Your task to perform on an android device: allow notifications from all sites in the chrome app Image 0: 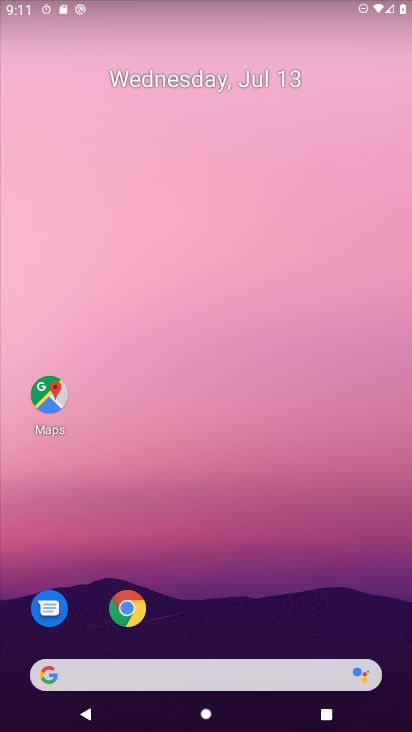
Step 0: drag from (283, 481) to (277, 307)
Your task to perform on an android device: allow notifications from all sites in the chrome app Image 1: 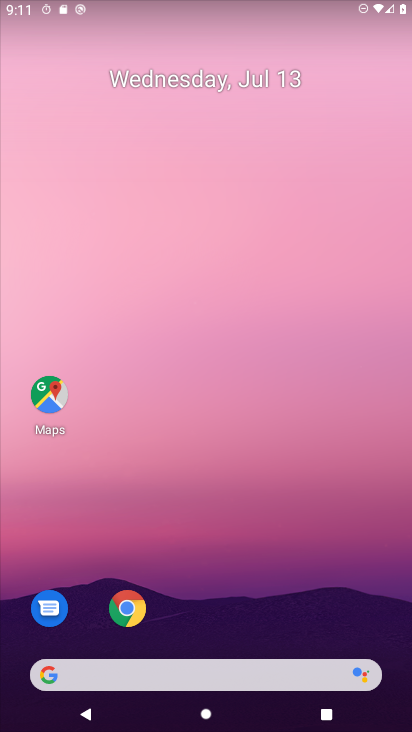
Step 1: drag from (261, 538) to (232, 100)
Your task to perform on an android device: allow notifications from all sites in the chrome app Image 2: 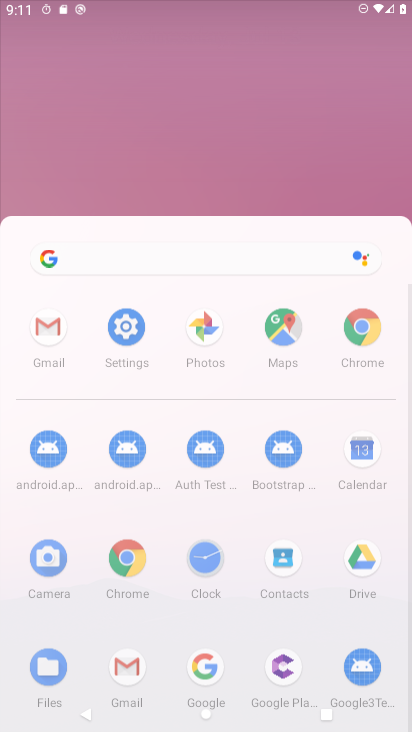
Step 2: drag from (208, 494) to (151, 216)
Your task to perform on an android device: allow notifications from all sites in the chrome app Image 3: 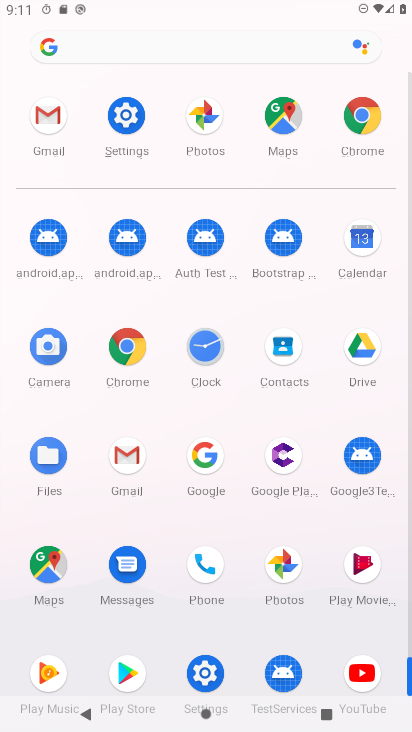
Step 3: click (362, 115)
Your task to perform on an android device: allow notifications from all sites in the chrome app Image 4: 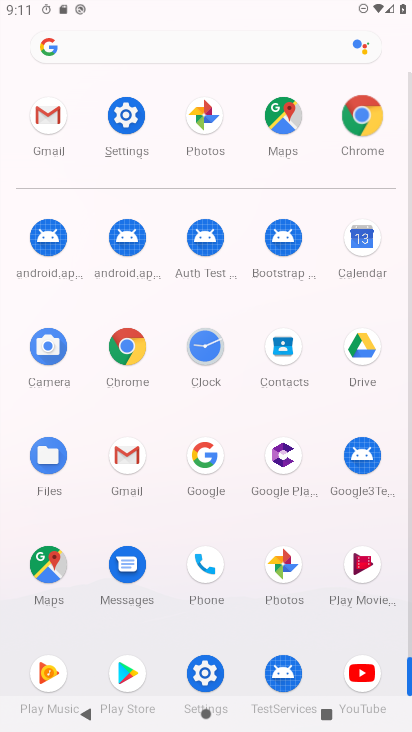
Step 4: click (363, 117)
Your task to perform on an android device: allow notifications from all sites in the chrome app Image 5: 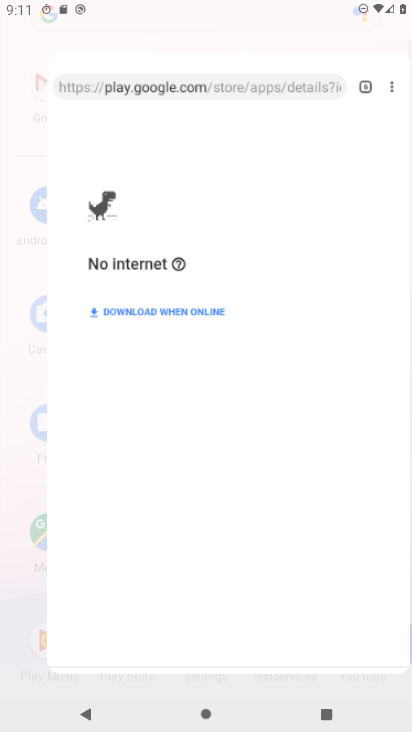
Step 5: click (363, 117)
Your task to perform on an android device: allow notifications from all sites in the chrome app Image 6: 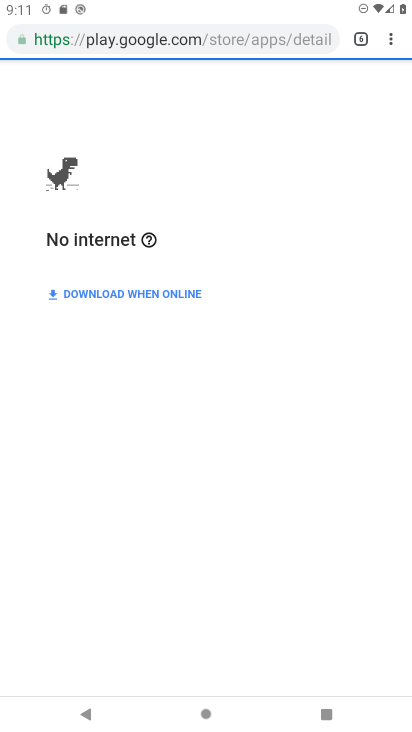
Step 6: drag from (391, 33) to (254, 431)
Your task to perform on an android device: allow notifications from all sites in the chrome app Image 7: 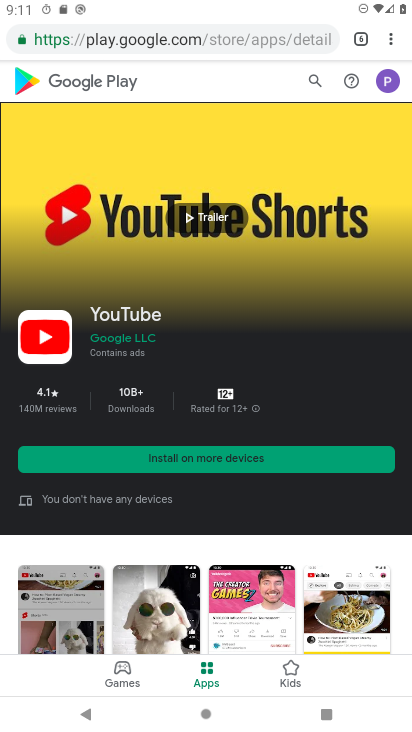
Step 7: click (261, 426)
Your task to perform on an android device: allow notifications from all sites in the chrome app Image 8: 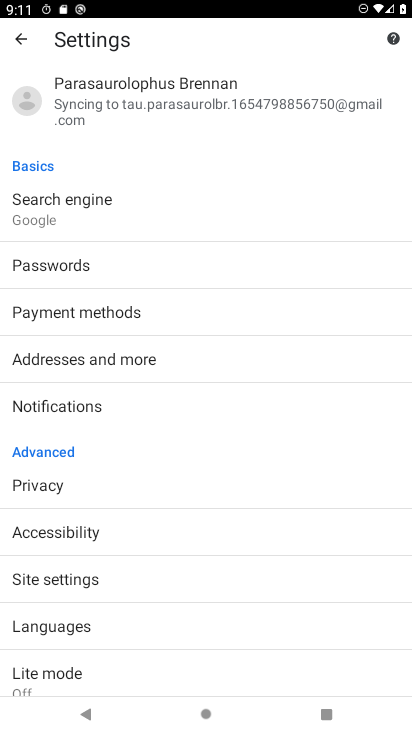
Step 8: click (37, 576)
Your task to perform on an android device: allow notifications from all sites in the chrome app Image 9: 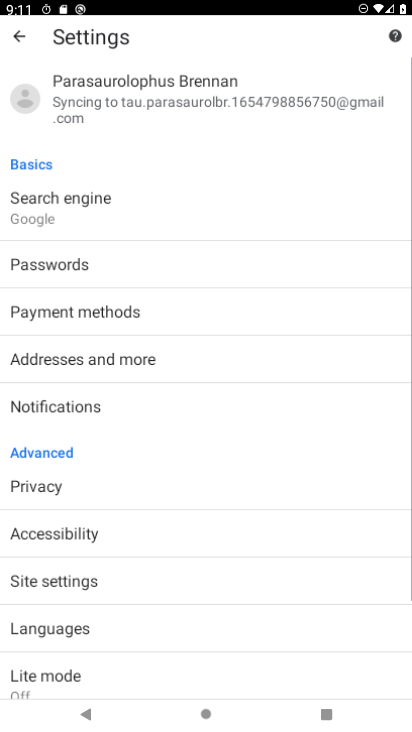
Step 9: click (57, 583)
Your task to perform on an android device: allow notifications from all sites in the chrome app Image 10: 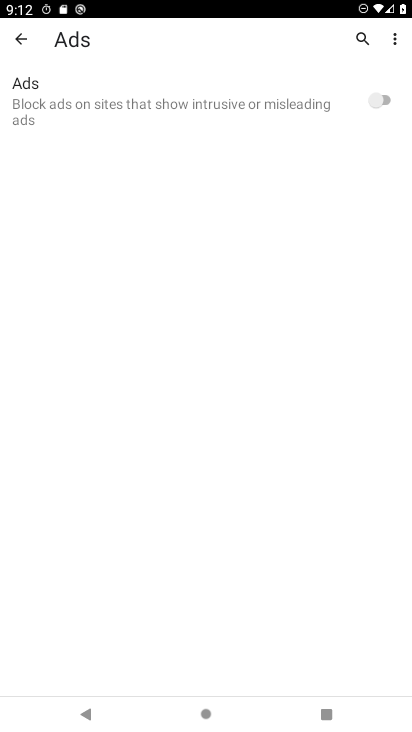
Step 10: click (19, 30)
Your task to perform on an android device: allow notifications from all sites in the chrome app Image 11: 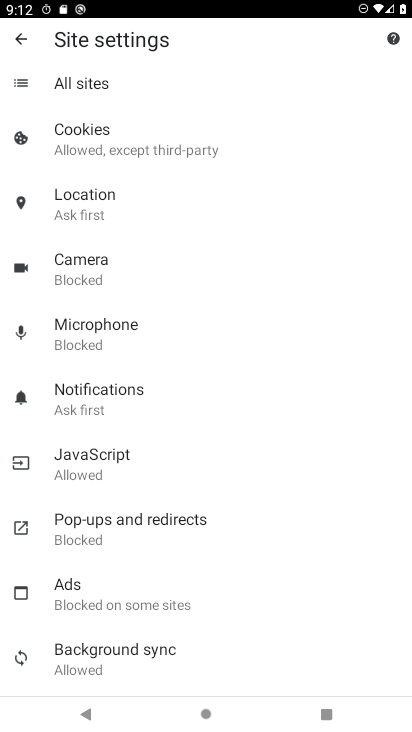
Step 11: click (80, 403)
Your task to perform on an android device: allow notifications from all sites in the chrome app Image 12: 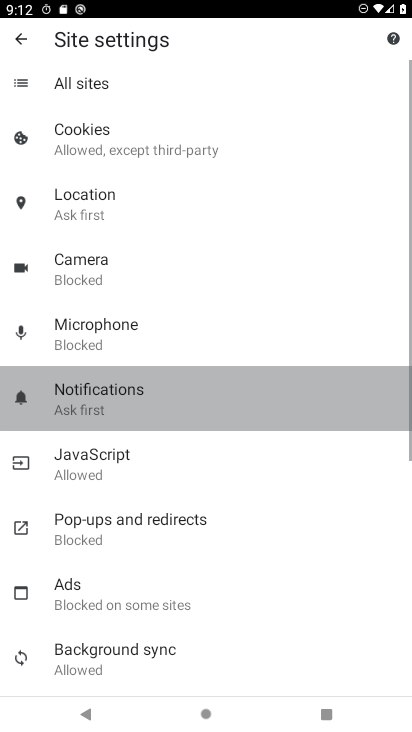
Step 12: click (80, 403)
Your task to perform on an android device: allow notifications from all sites in the chrome app Image 13: 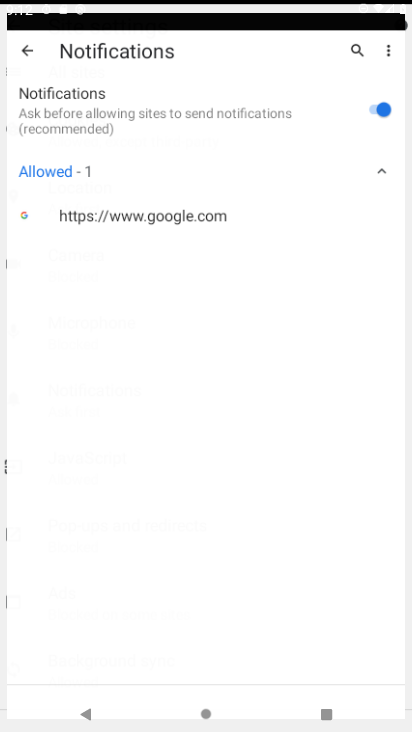
Step 13: click (82, 401)
Your task to perform on an android device: allow notifications from all sites in the chrome app Image 14: 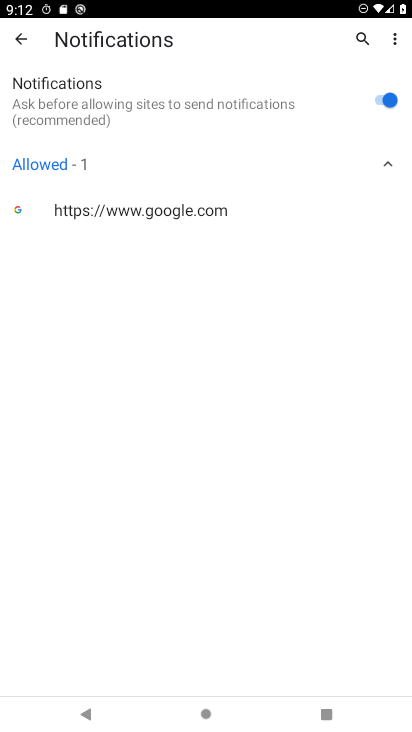
Step 14: click (167, 215)
Your task to perform on an android device: allow notifications from all sites in the chrome app Image 15: 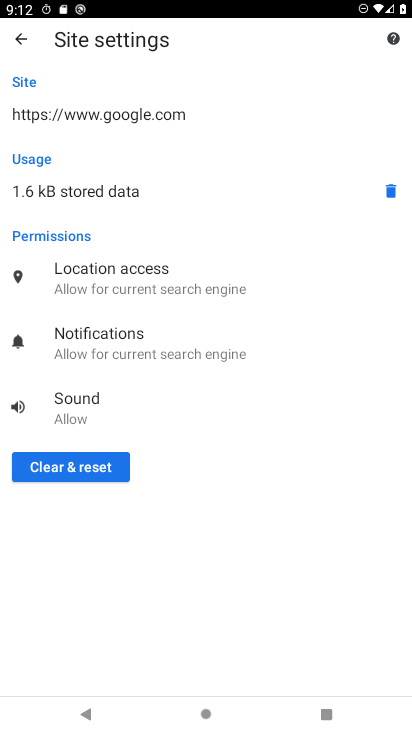
Step 15: click (107, 345)
Your task to perform on an android device: allow notifications from all sites in the chrome app Image 16: 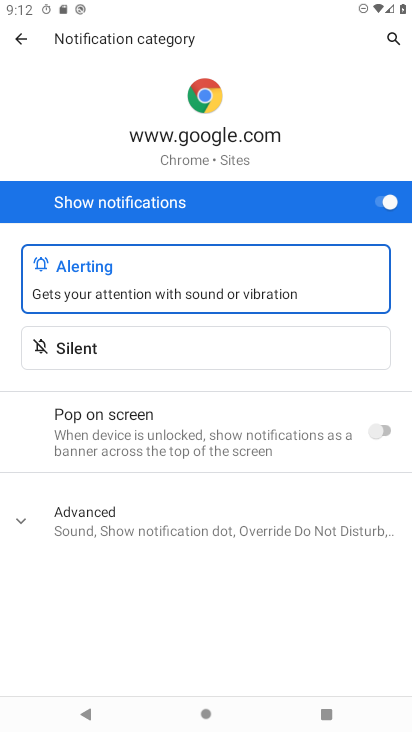
Step 16: task complete